Your task to perform on an android device: Open Chrome and go to settings Image 0: 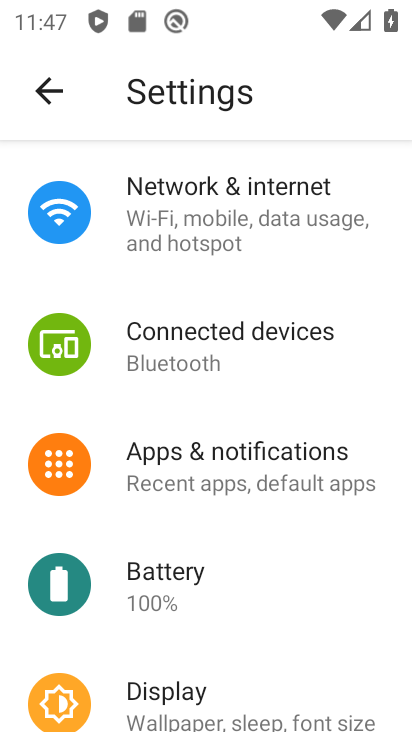
Step 0: press home button
Your task to perform on an android device: Open Chrome and go to settings Image 1: 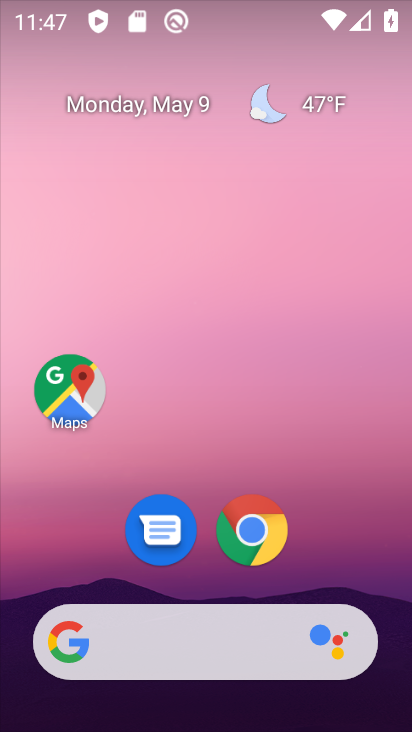
Step 1: drag from (370, 543) to (367, 192)
Your task to perform on an android device: Open Chrome and go to settings Image 2: 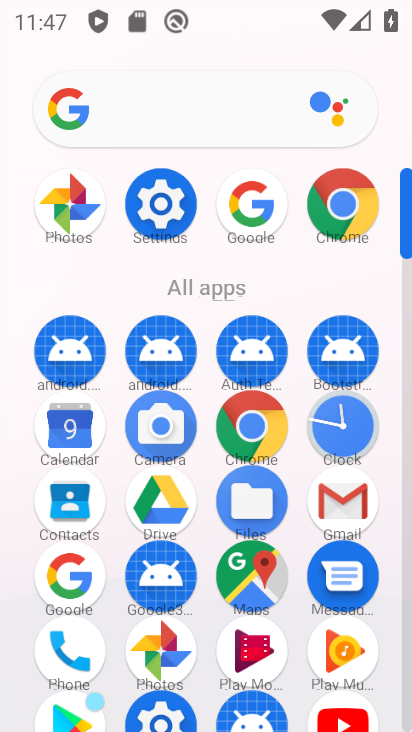
Step 2: click (327, 230)
Your task to perform on an android device: Open Chrome and go to settings Image 3: 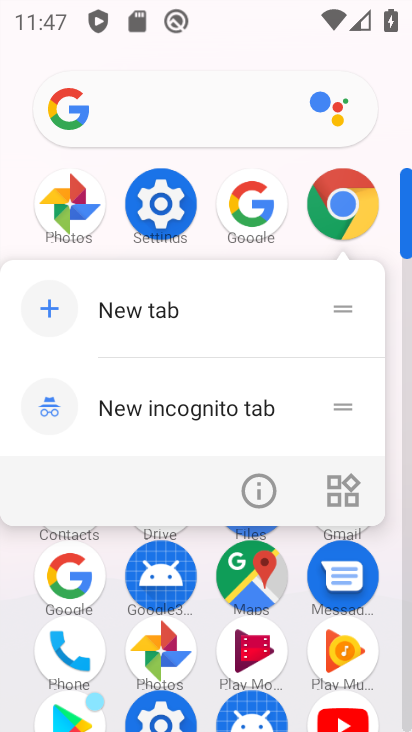
Step 3: click (322, 212)
Your task to perform on an android device: Open Chrome and go to settings Image 4: 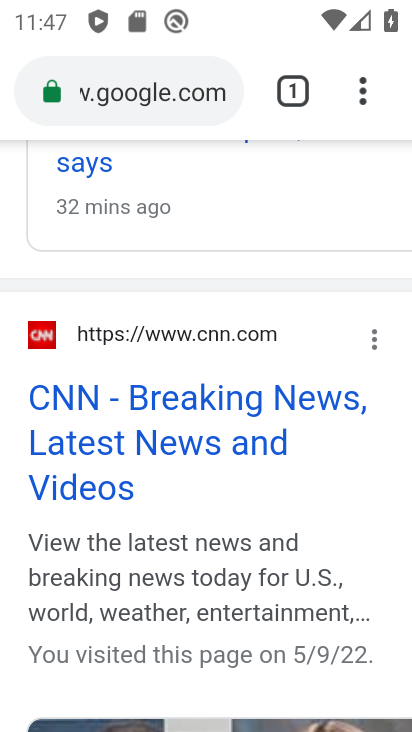
Step 4: task complete